Your task to perform on an android device: Go to Reddit.com Image 0: 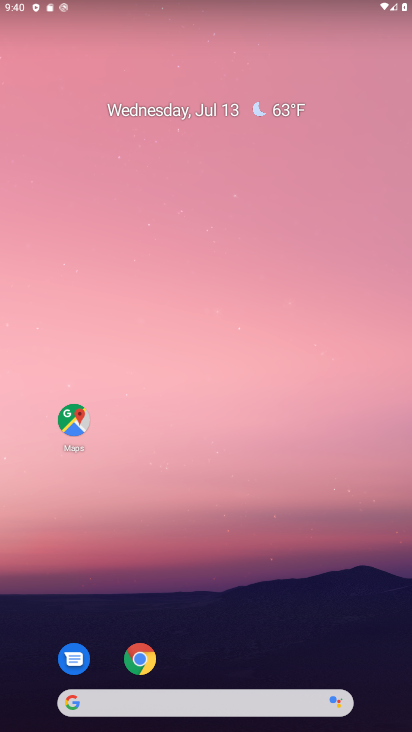
Step 0: drag from (186, 686) to (219, 112)
Your task to perform on an android device: Go to Reddit.com Image 1: 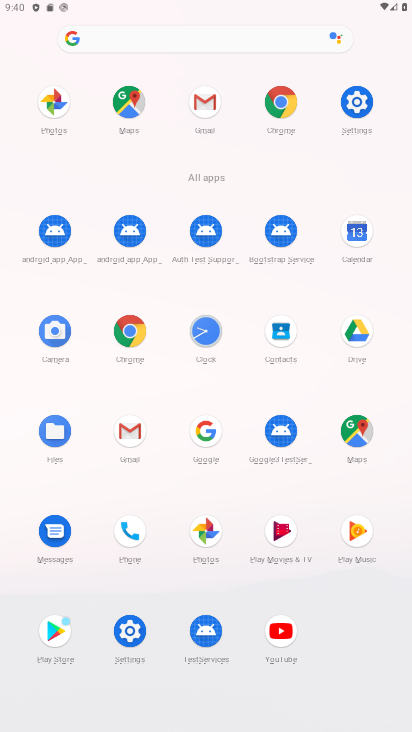
Step 1: click (203, 432)
Your task to perform on an android device: Go to Reddit.com Image 2: 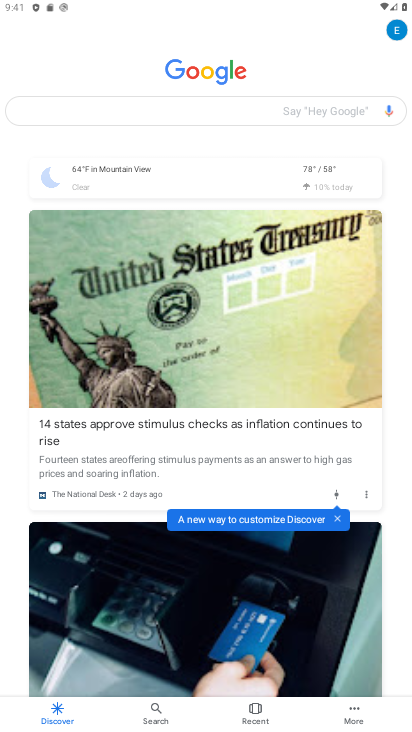
Step 2: click (201, 115)
Your task to perform on an android device: Go to Reddit.com Image 3: 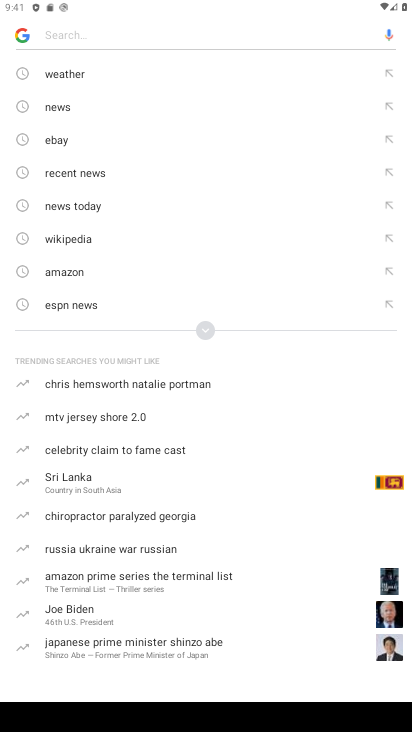
Step 3: type "Reddit.com"
Your task to perform on an android device: Go to Reddit.com Image 4: 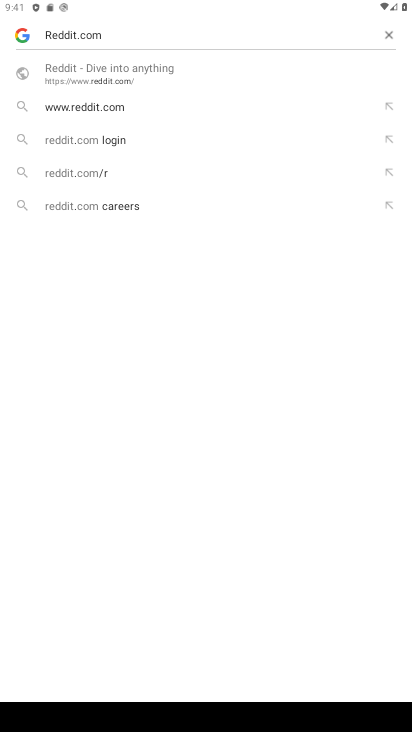
Step 4: click (171, 72)
Your task to perform on an android device: Go to Reddit.com Image 5: 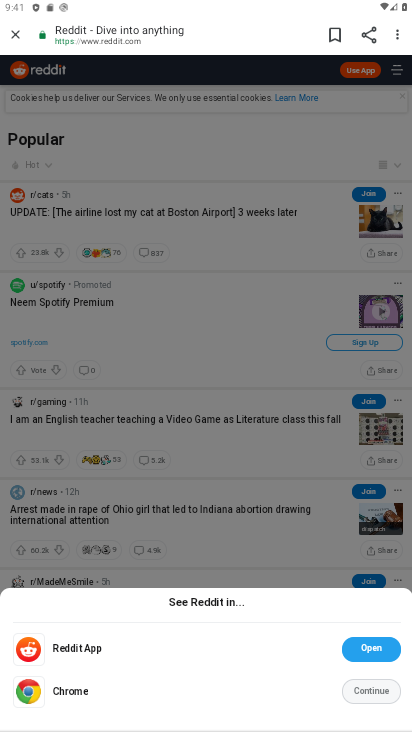
Step 5: click (375, 694)
Your task to perform on an android device: Go to Reddit.com Image 6: 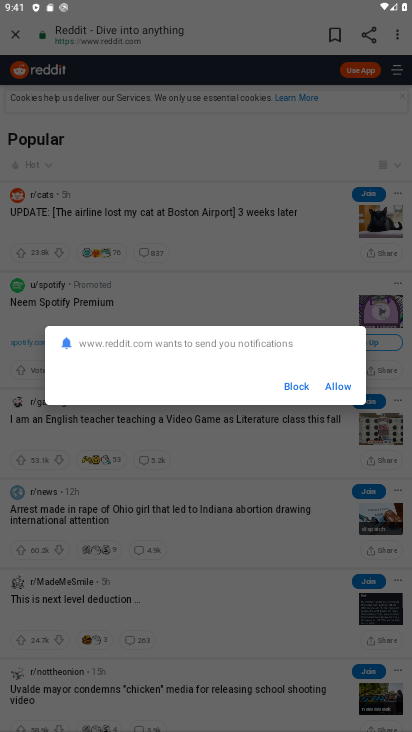
Step 6: click (339, 375)
Your task to perform on an android device: Go to Reddit.com Image 7: 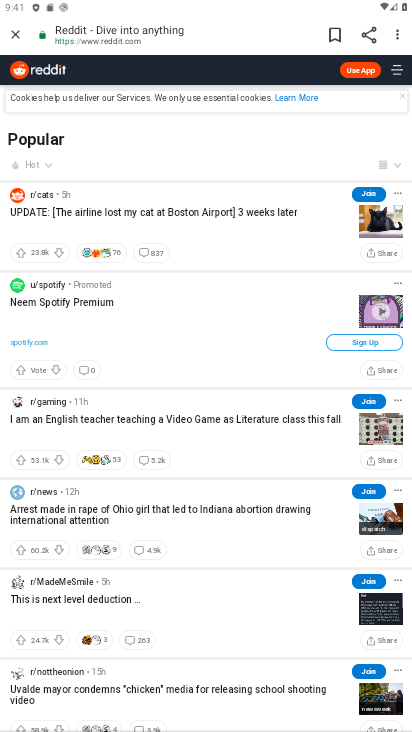
Step 7: task complete